Your task to perform on an android device: turn notification dots on Image 0: 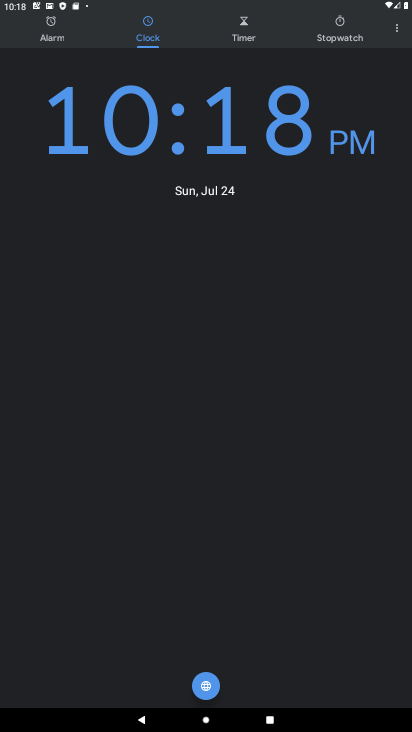
Step 0: press home button
Your task to perform on an android device: turn notification dots on Image 1: 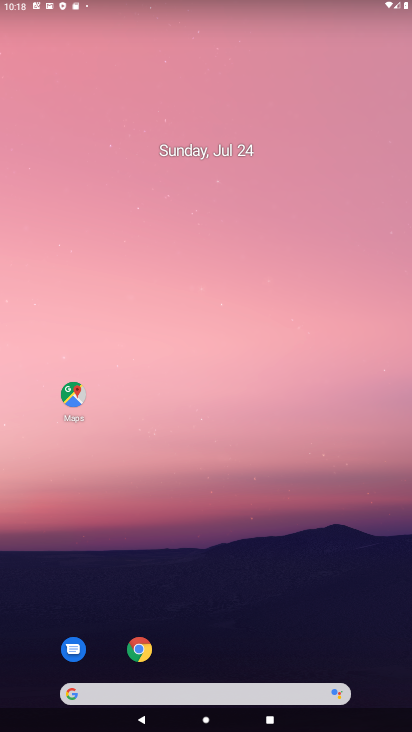
Step 1: drag from (270, 333) to (248, 0)
Your task to perform on an android device: turn notification dots on Image 2: 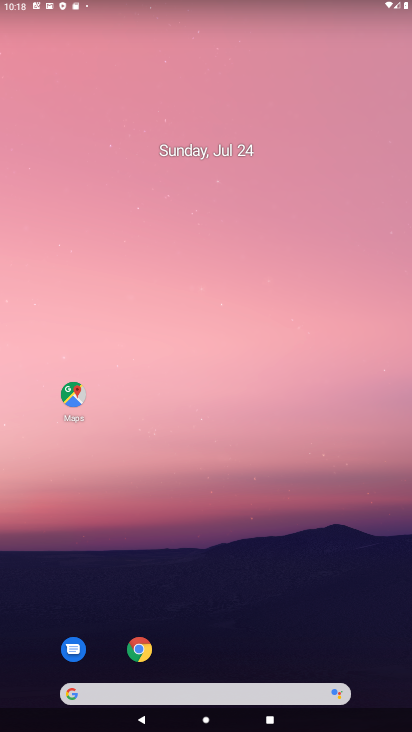
Step 2: drag from (283, 581) to (269, 8)
Your task to perform on an android device: turn notification dots on Image 3: 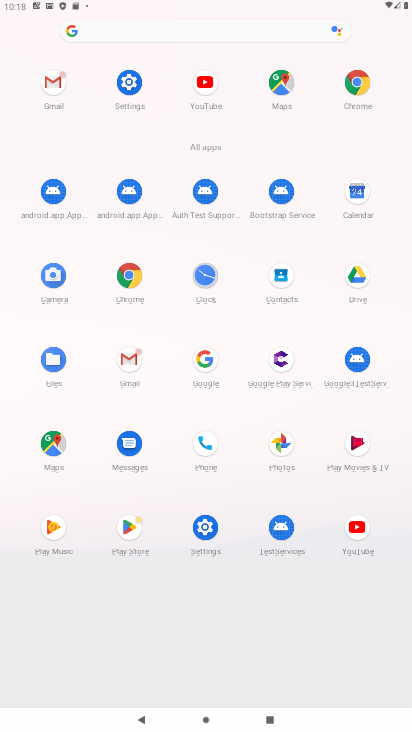
Step 3: click (128, 100)
Your task to perform on an android device: turn notification dots on Image 4: 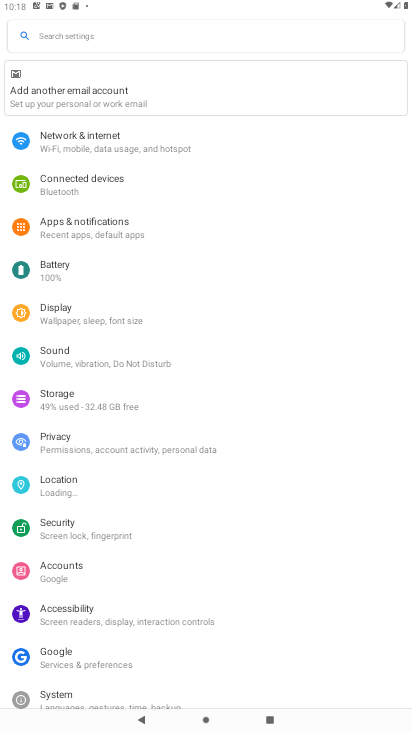
Step 4: click (115, 231)
Your task to perform on an android device: turn notification dots on Image 5: 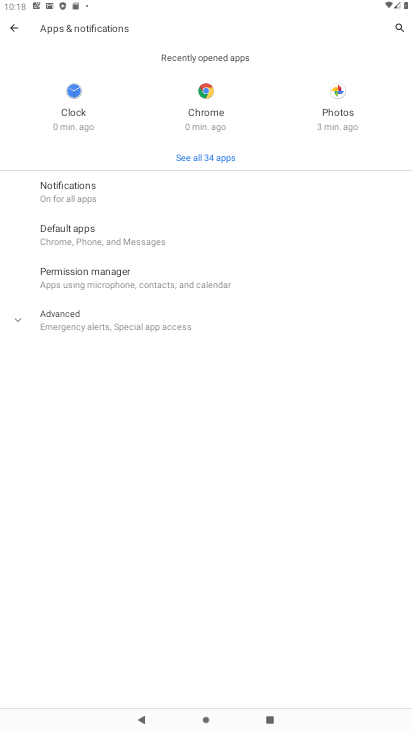
Step 5: click (84, 200)
Your task to perform on an android device: turn notification dots on Image 6: 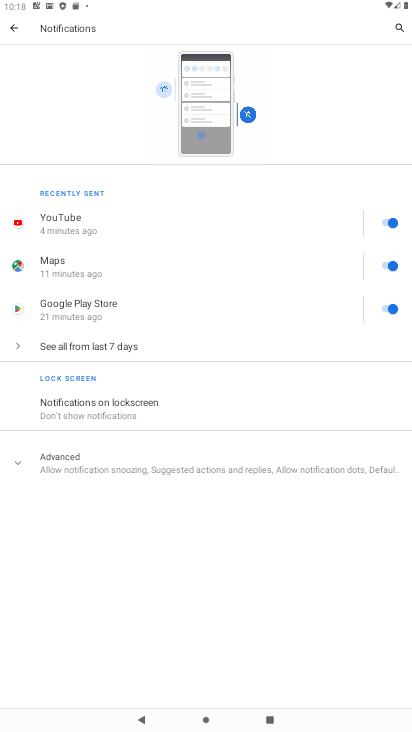
Step 6: click (144, 452)
Your task to perform on an android device: turn notification dots on Image 7: 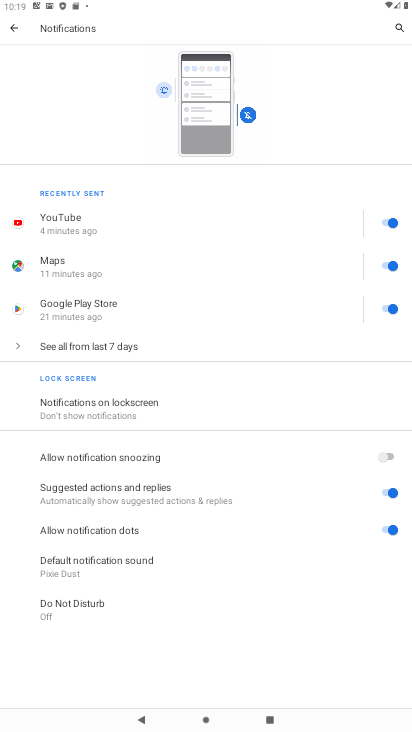
Step 7: task complete